Your task to perform on an android device: add a contact Image 0: 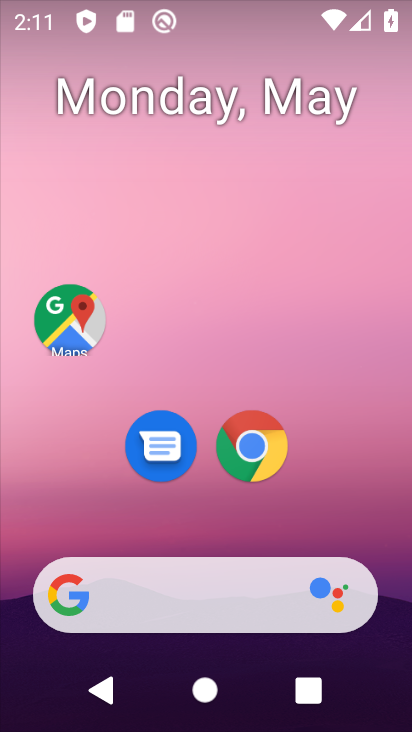
Step 0: press home button
Your task to perform on an android device: add a contact Image 1: 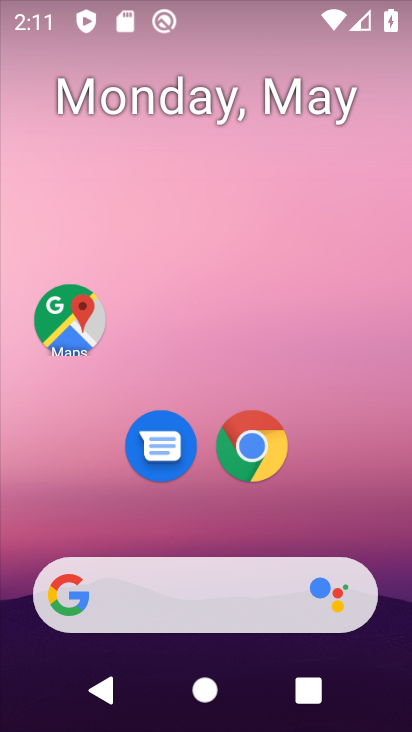
Step 1: drag from (347, 506) to (321, 151)
Your task to perform on an android device: add a contact Image 2: 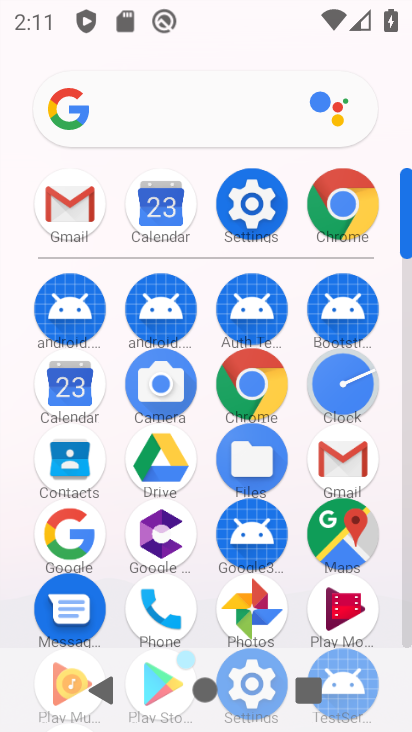
Step 2: click (78, 461)
Your task to perform on an android device: add a contact Image 3: 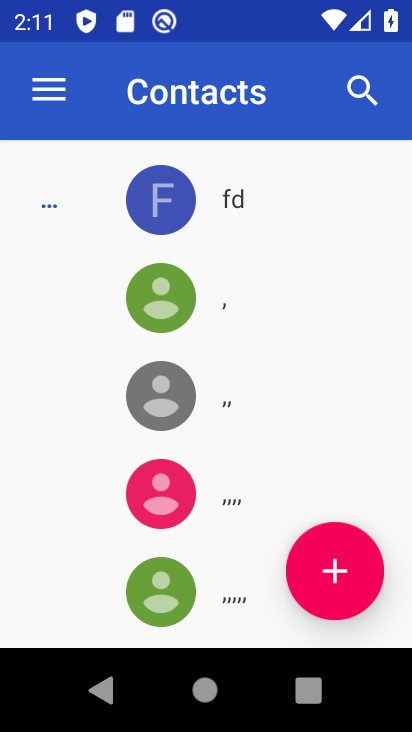
Step 3: drag from (246, 534) to (230, 185)
Your task to perform on an android device: add a contact Image 4: 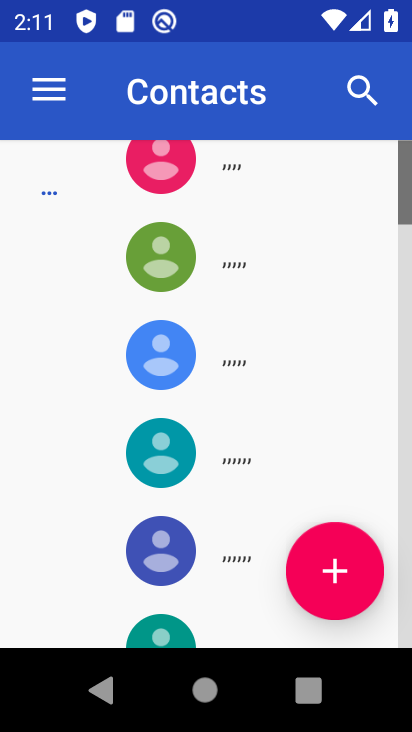
Step 4: click (325, 570)
Your task to perform on an android device: add a contact Image 5: 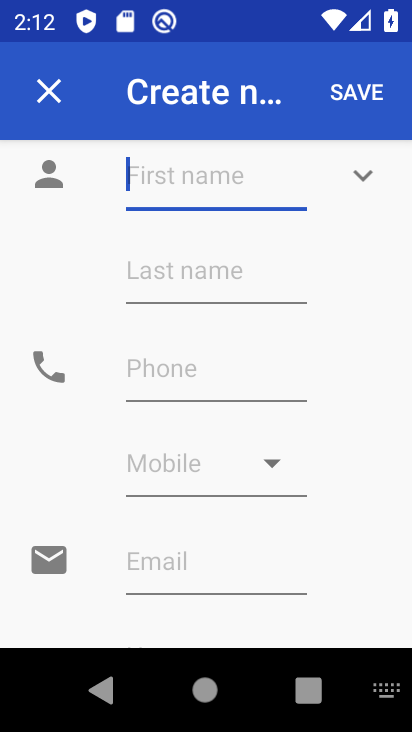
Step 5: click (161, 180)
Your task to perform on an android device: add a contact Image 6: 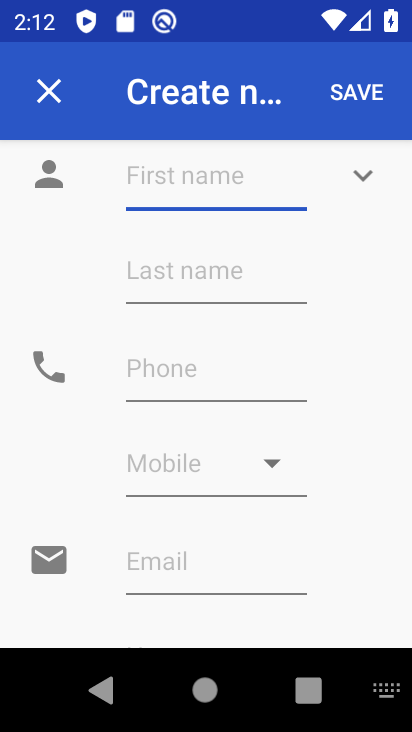
Step 6: type "sjnfjn"
Your task to perform on an android device: add a contact Image 7: 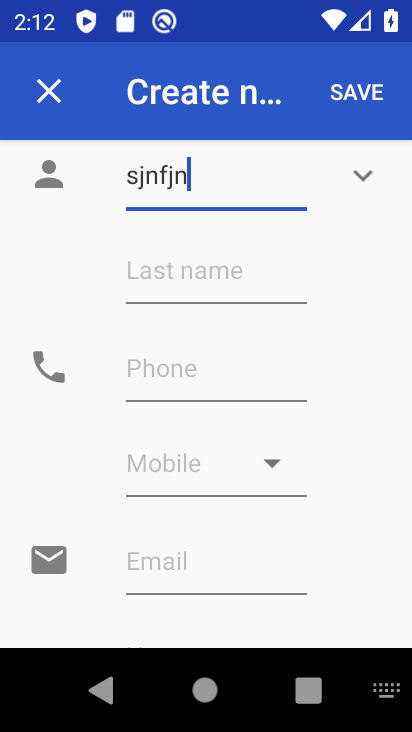
Step 7: click (174, 373)
Your task to perform on an android device: add a contact Image 8: 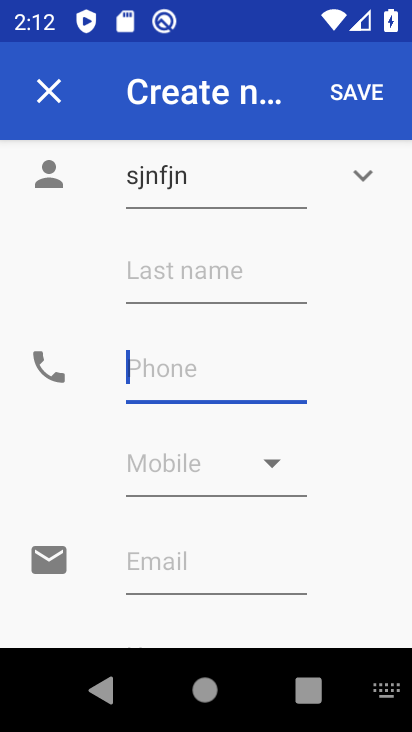
Step 8: type "20394084023"
Your task to perform on an android device: add a contact Image 9: 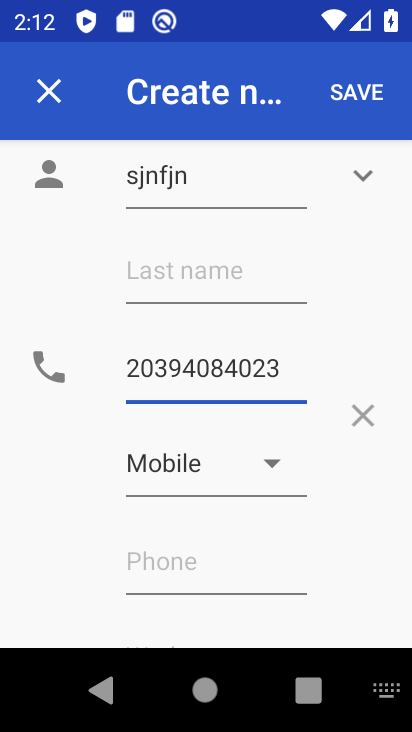
Step 9: task complete